Your task to perform on an android device: snooze an email in the gmail app Image 0: 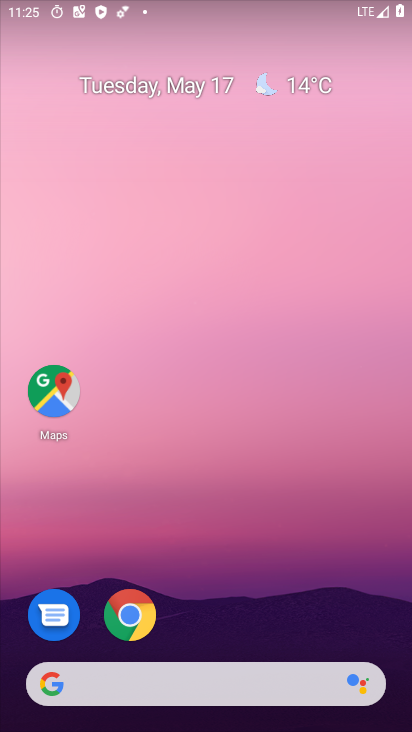
Step 0: press home button
Your task to perform on an android device: snooze an email in the gmail app Image 1: 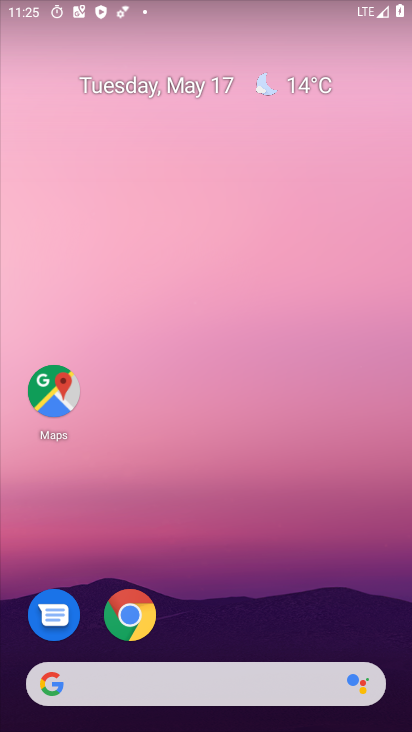
Step 1: drag from (136, 692) to (268, 189)
Your task to perform on an android device: snooze an email in the gmail app Image 2: 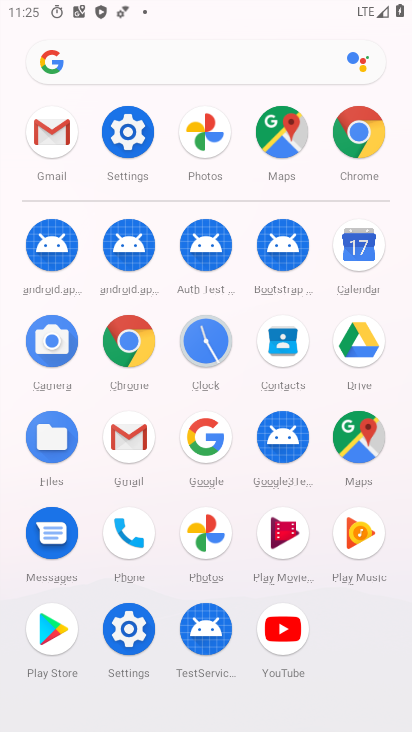
Step 2: click (50, 142)
Your task to perform on an android device: snooze an email in the gmail app Image 3: 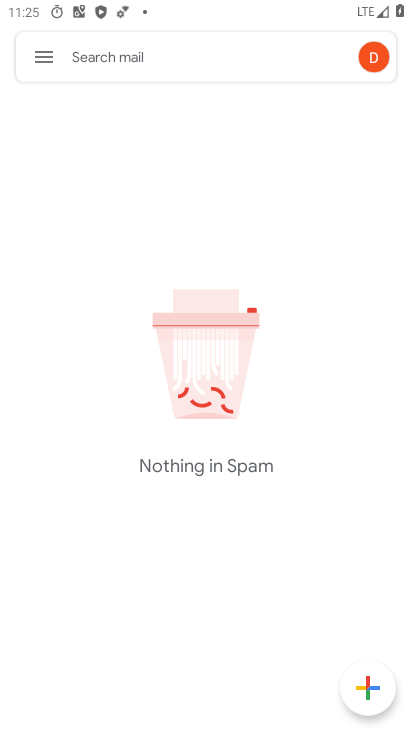
Step 3: click (49, 52)
Your task to perform on an android device: snooze an email in the gmail app Image 4: 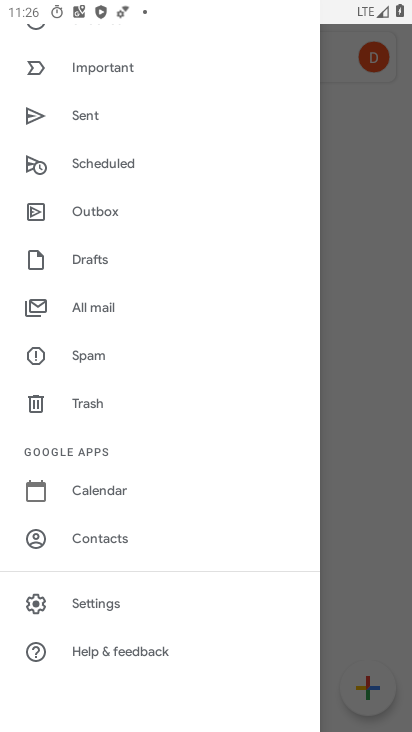
Step 4: click (107, 305)
Your task to perform on an android device: snooze an email in the gmail app Image 5: 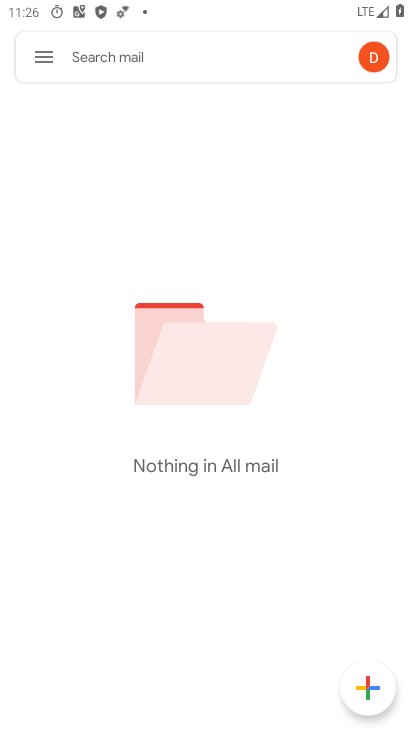
Step 5: task complete